Your task to perform on an android device: clear all cookies in the chrome app Image 0: 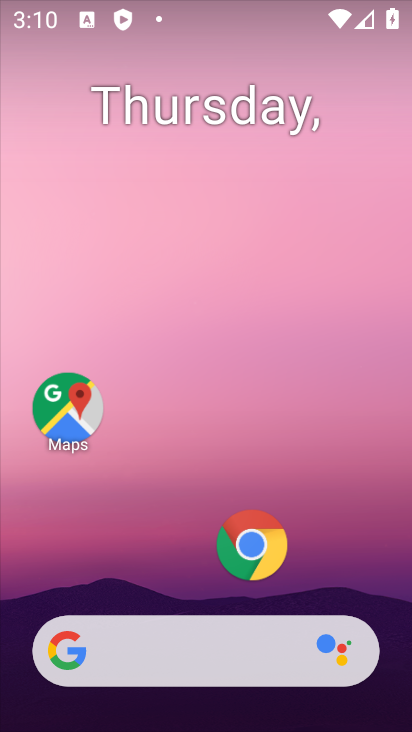
Step 0: drag from (274, 676) to (266, 4)
Your task to perform on an android device: clear all cookies in the chrome app Image 1: 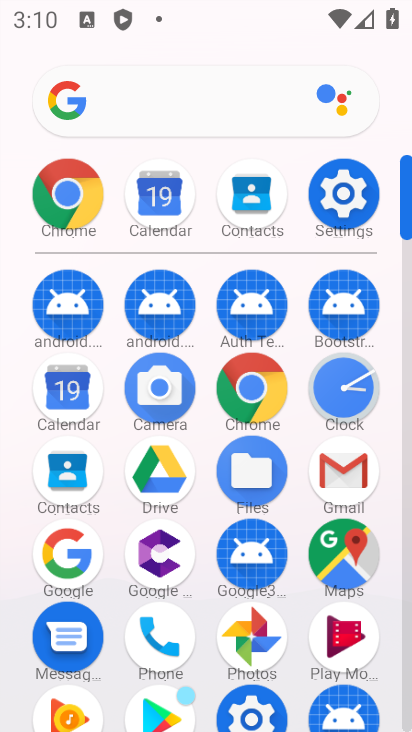
Step 1: click (263, 380)
Your task to perform on an android device: clear all cookies in the chrome app Image 2: 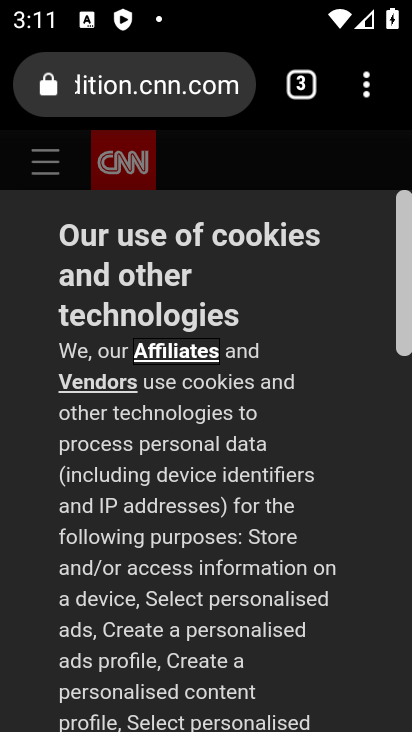
Step 2: click (360, 68)
Your task to perform on an android device: clear all cookies in the chrome app Image 3: 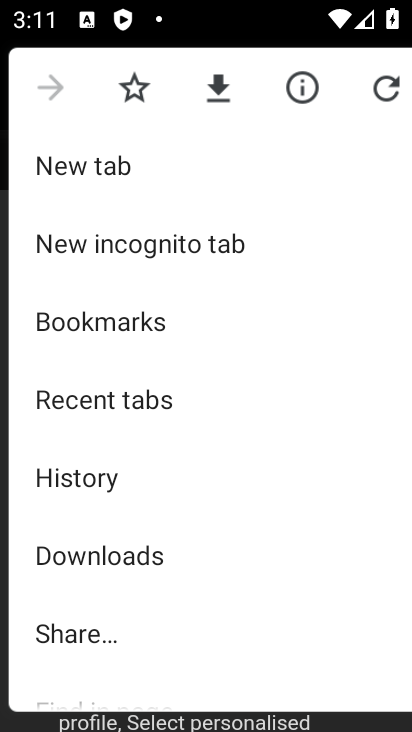
Step 3: drag from (250, 627) to (328, 7)
Your task to perform on an android device: clear all cookies in the chrome app Image 4: 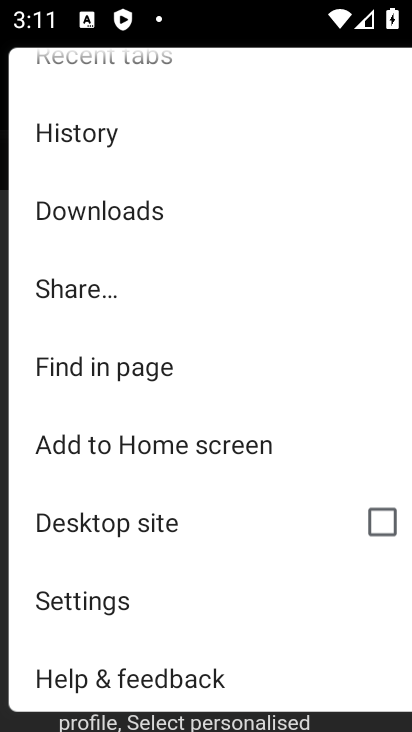
Step 4: click (192, 602)
Your task to perform on an android device: clear all cookies in the chrome app Image 5: 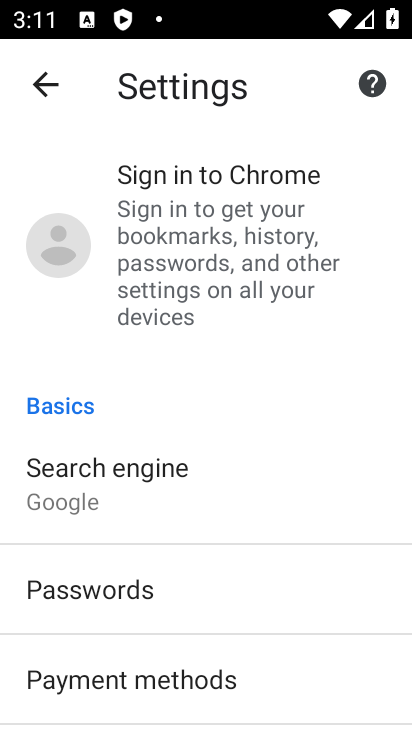
Step 5: drag from (192, 602) to (252, 8)
Your task to perform on an android device: clear all cookies in the chrome app Image 6: 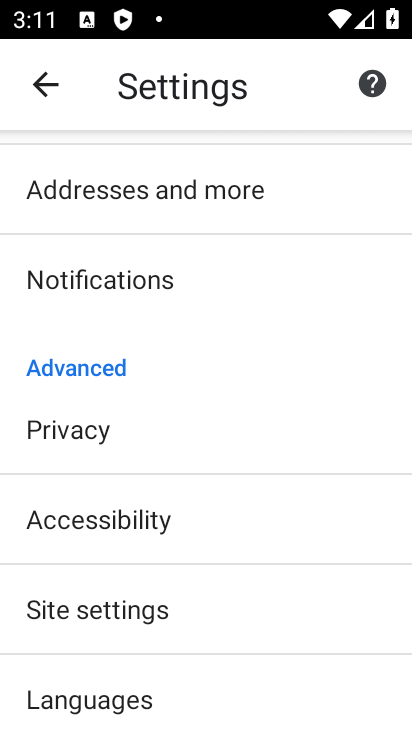
Step 6: click (122, 440)
Your task to perform on an android device: clear all cookies in the chrome app Image 7: 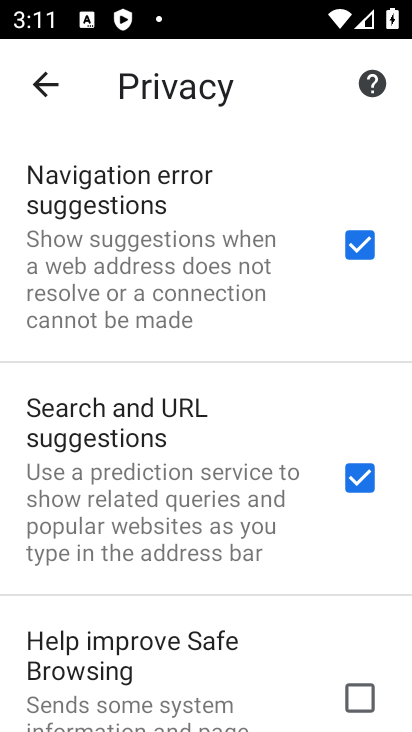
Step 7: drag from (244, 698) to (296, 91)
Your task to perform on an android device: clear all cookies in the chrome app Image 8: 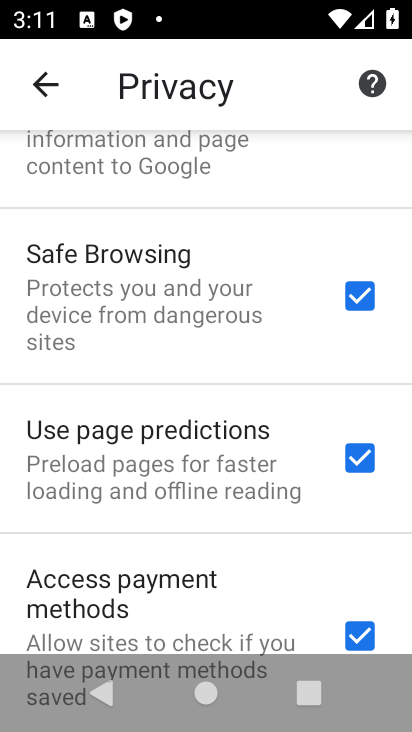
Step 8: drag from (243, 635) to (265, 123)
Your task to perform on an android device: clear all cookies in the chrome app Image 9: 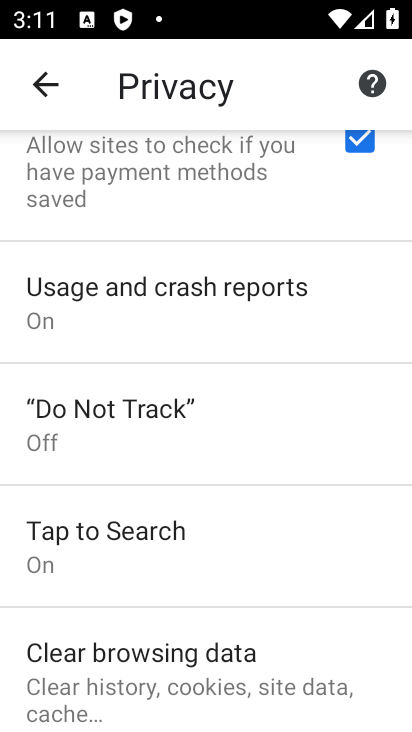
Step 9: click (235, 668)
Your task to perform on an android device: clear all cookies in the chrome app Image 10: 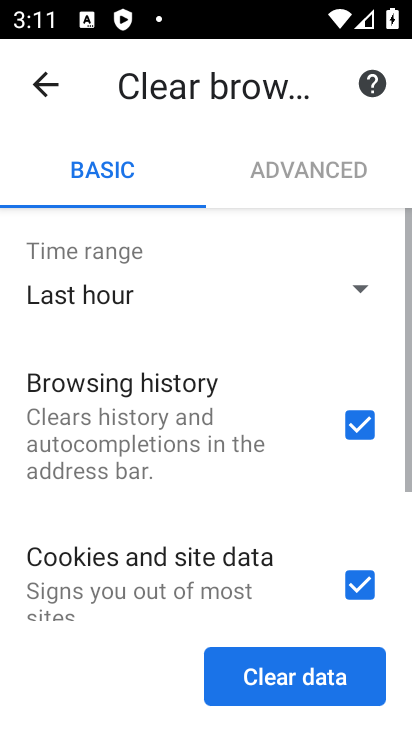
Step 10: click (323, 670)
Your task to perform on an android device: clear all cookies in the chrome app Image 11: 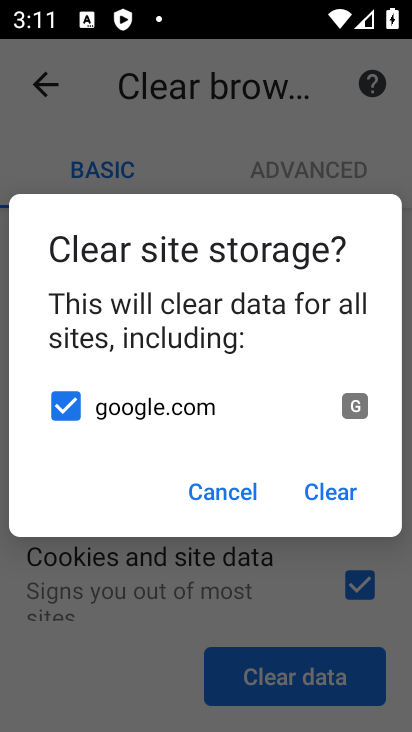
Step 11: click (348, 496)
Your task to perform on an android device: clear all cookies in the chrome app Image 12: 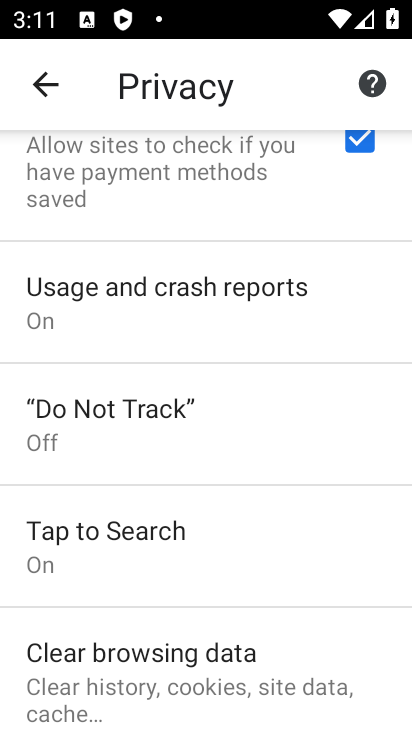
Step 12: task complete